Your task to perform on an android device: Is it going to rain this weekend? Image 0: 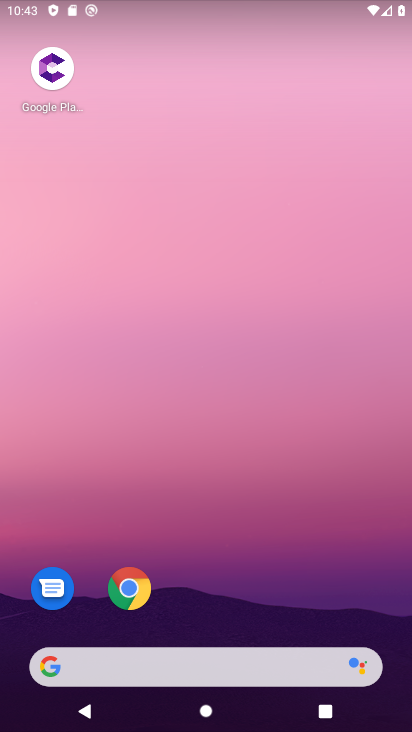
Step 0: drag from (322, 516) to (368, 115)
Your task to perform on an android device: Is it going to rain this weekend? Image 1: 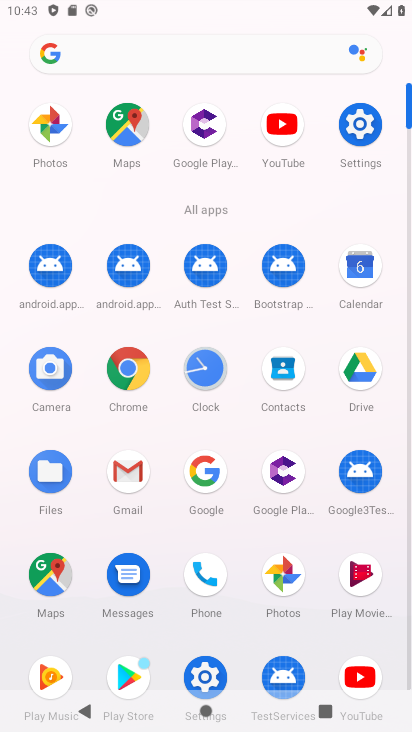
Step 1: click (123, 370)
Your task to perform on an android device: Is it going to rain this weekend? Image 2: 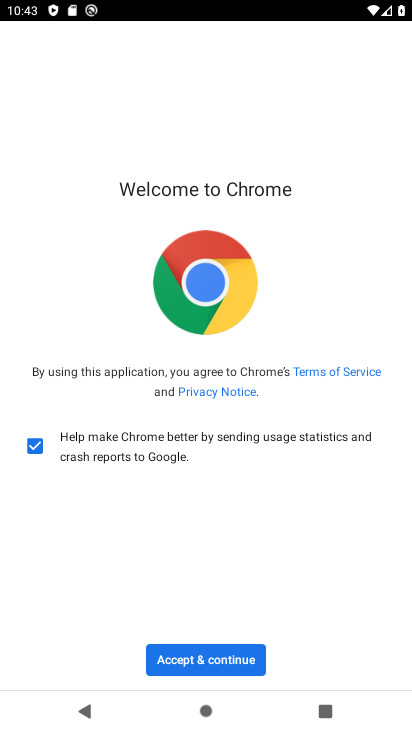
Step 2: click (239, 657)
Your task to perform on an android device: Is it going to rain this weekend? Image 3: 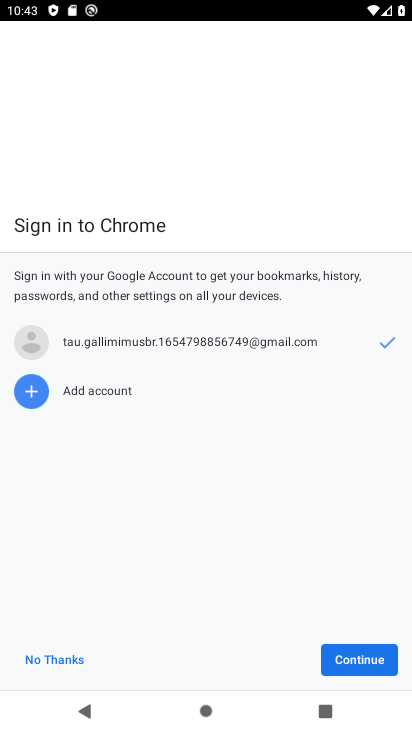
Step 3: click (351, 653)
Your task to perform on an android device: Is it going to rain this weekend? Image 4: 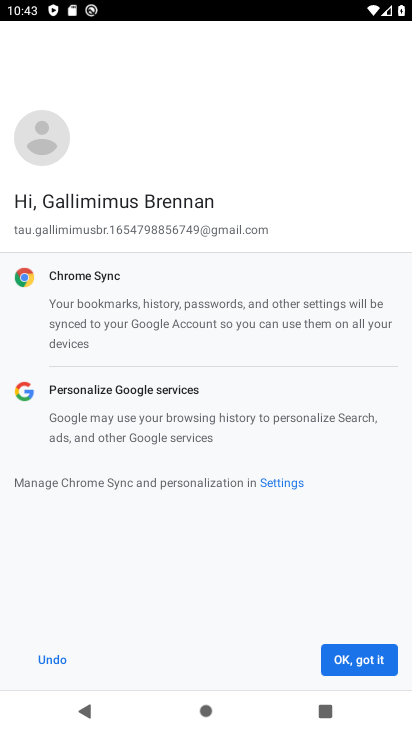
Step 4: click (351, 653)
Your task to perform on an android device: Is it going to rain this weekend? Image 5: 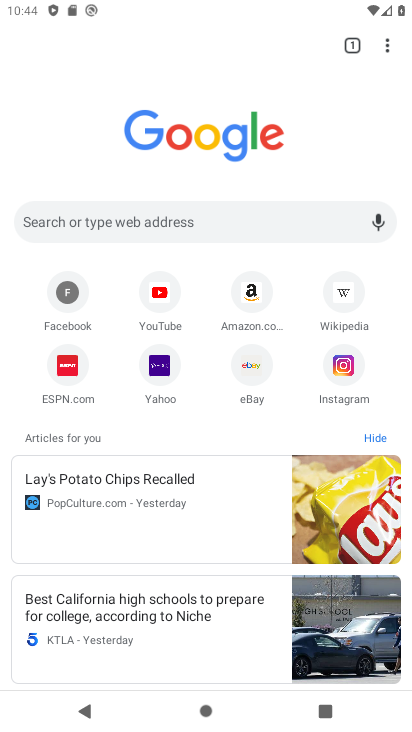
Step 5: click (227, 213)
Your task to perform on an android device: Is it going to rain this weekend? Image 6: 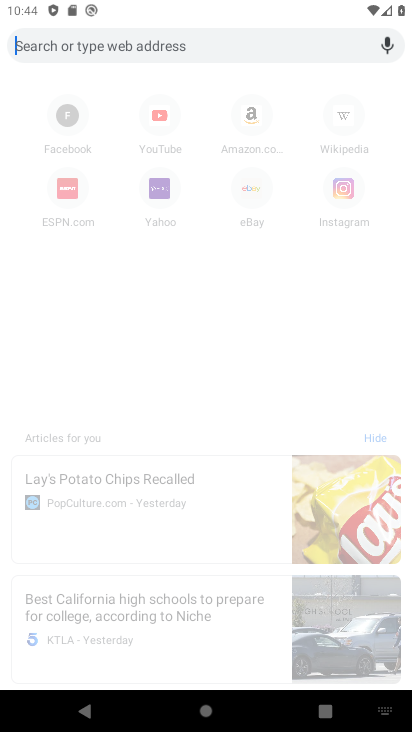
Step 6: type "is it going to rain this weekend"
Your task to perform on an android device: Is it going to rain this weekend? Image 7: 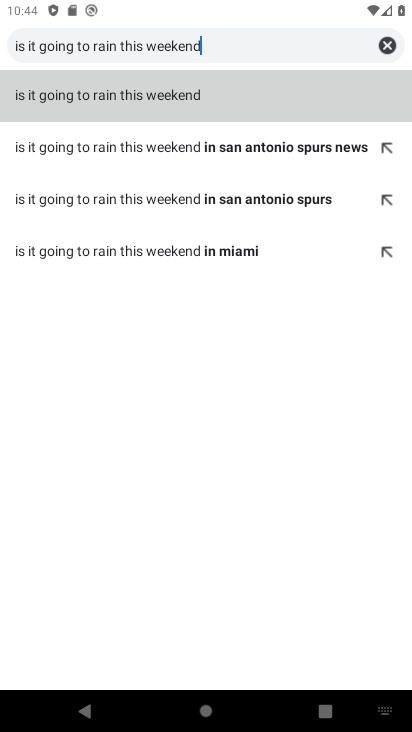
Step 7: click (150, 95)
Your task to perform on an android device: Is it going to rain this weekend? Image 8: 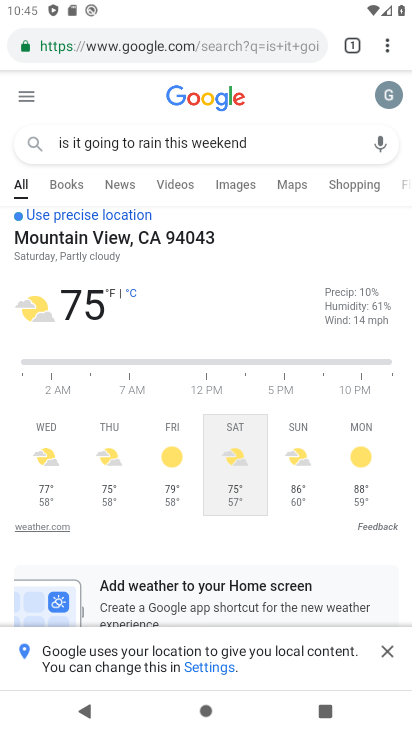
Step 8: task complete